Your task to perform on an android device: Go to Maps Image 0: 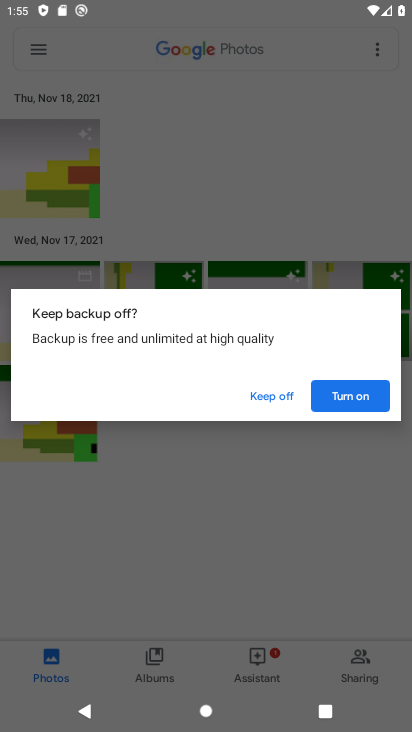
Step 0: press back button
Your task to perform on an android device: Go to Maps Image 1: 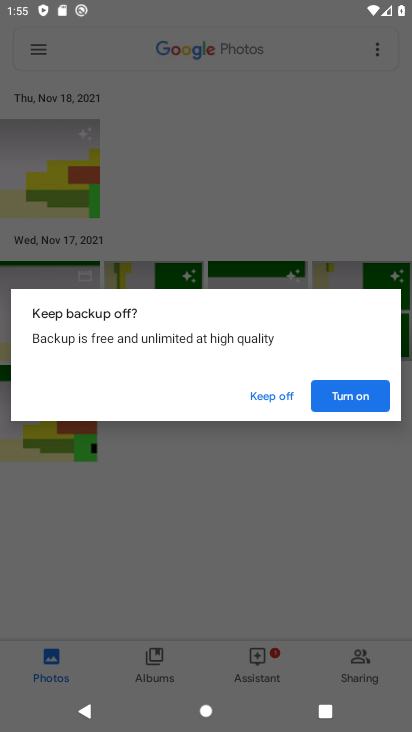
Step 1: press home button
Your task to perform on an android device: Go to Maps Image 2: 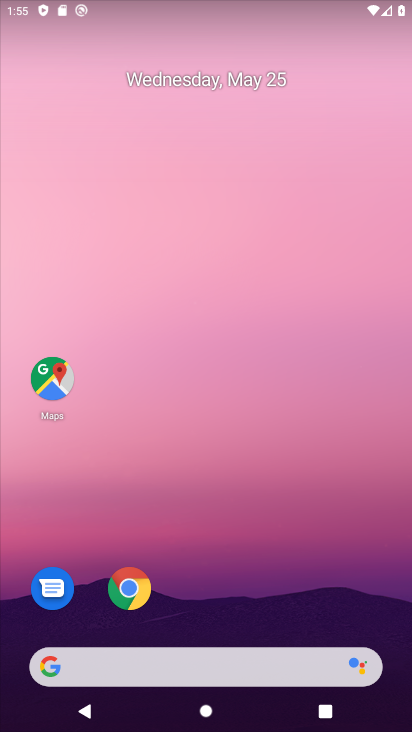
Step 2: drag from (269, 534) to (238, 64)
Your task to perform on an android device: Go to Maps Image 3: 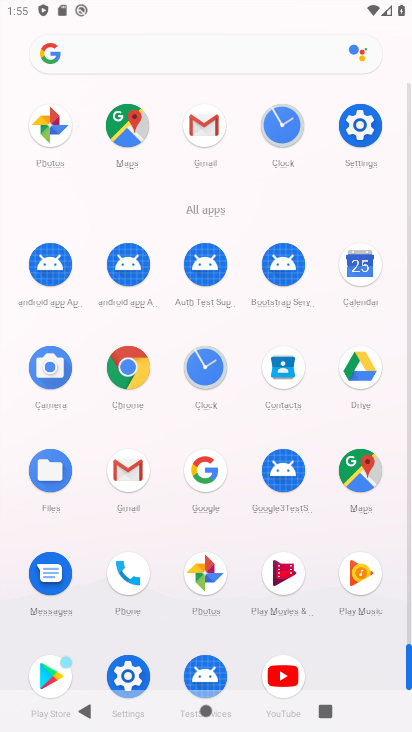
Step 3: drag from (6, 543) to (13, 330)
Your task to perform on an android device: Go to Maps Image 4: 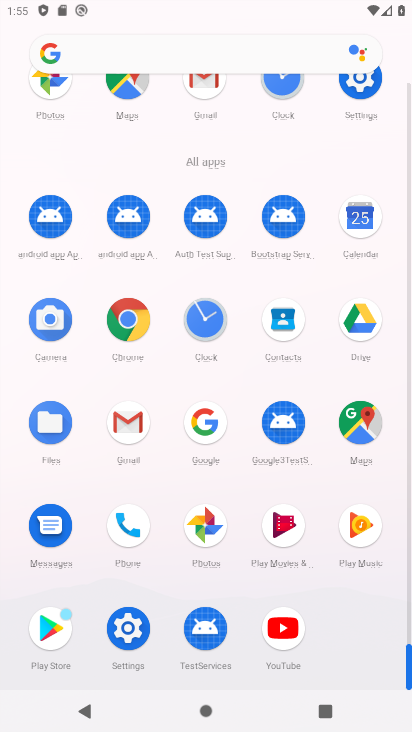
Step 4: click (352, 414)
Your task to perform on an android device: Go to Maps Image 5: 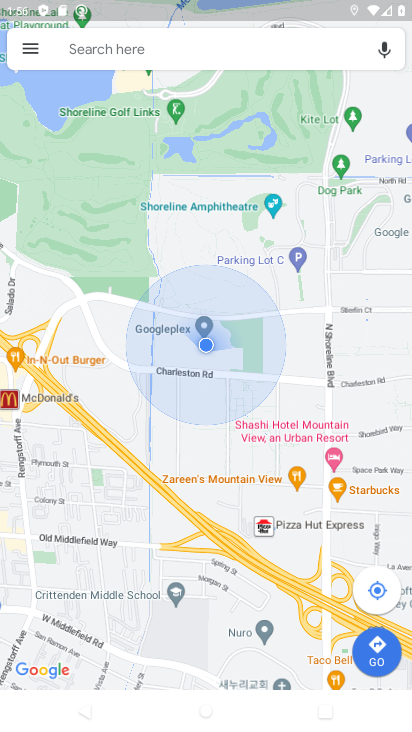
Step 5: task complete